Your task to perform on an android device: What's on my calendar today? Image 0: 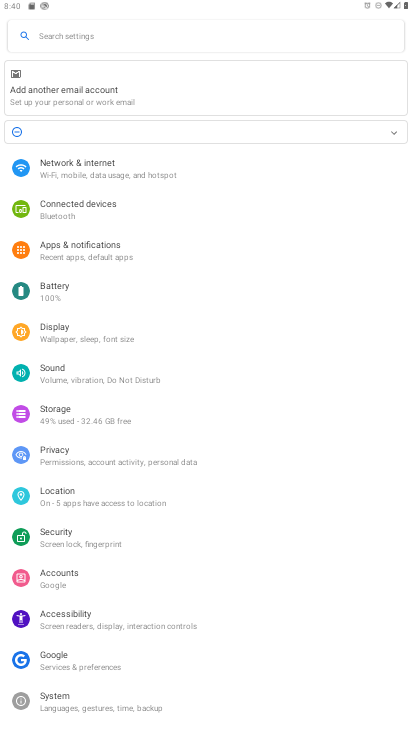
Step 0: press home button
Your task to perform on an android device: What's on my calendar today? Image 1: 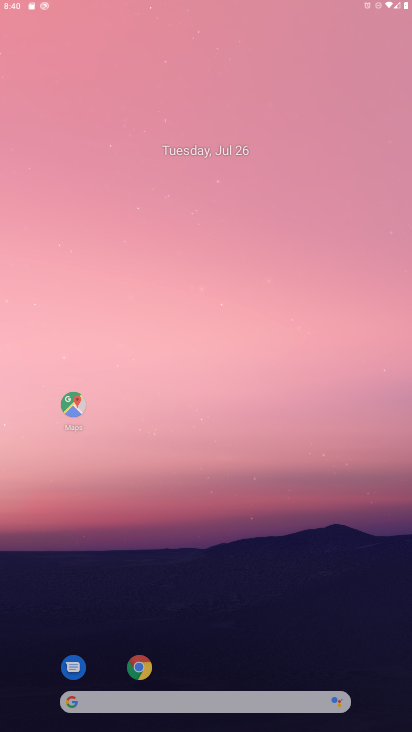
Step 1: drag from (404, 707) to (185, 110)
Your task to perform on an android device: What's on my calendar today? Image 2: 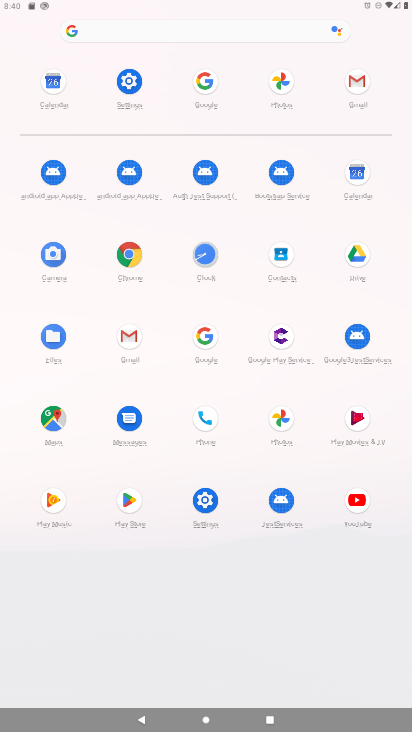
Step 2: click (353, 195)
Your task to perform on an android device: What's on my calendar today? Image 3: 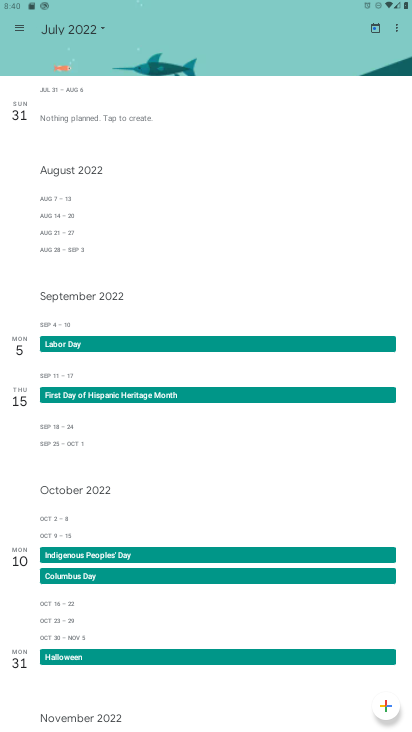
Step 3: click (84, 29)
Your task to perform on an android device: What's on my calendar today? Image 4: 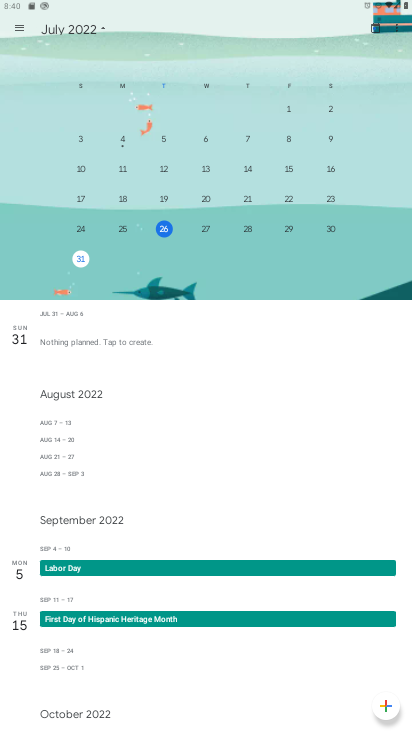
Step 4: click (203, 228)
Your task to perform on an android device: What's on my calendar today? Image 5: 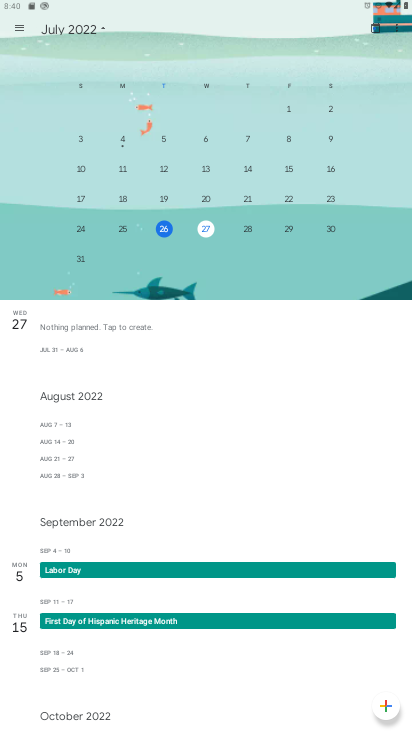
Step 5: click (84, 341)
Your task to perform on an android device: What's on my calendar today? Image 6: 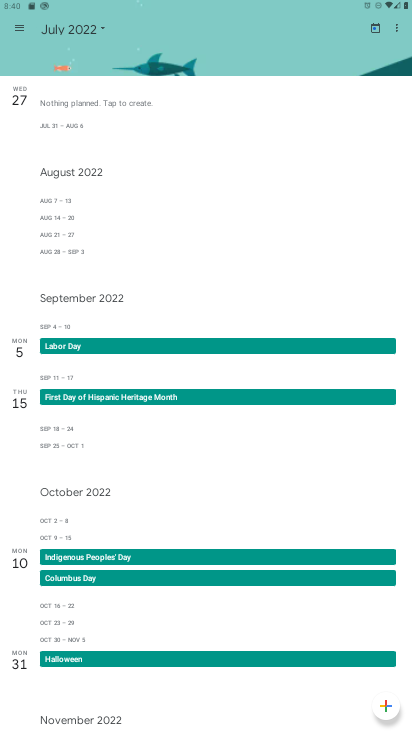
Step 6: task complete